Your task to perform on an android device: turn pop-ups off in chrome Image 0: 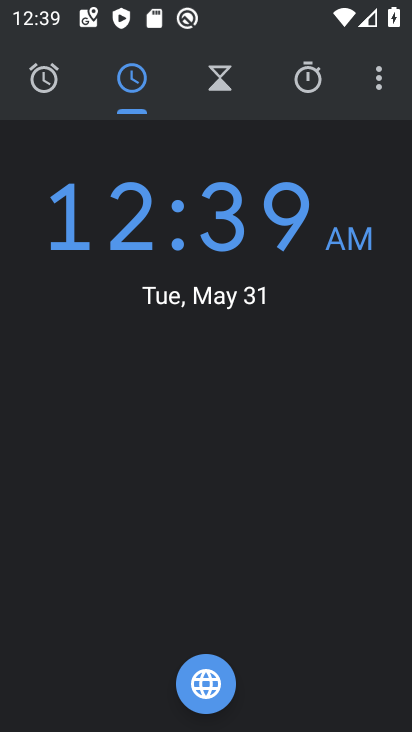
Step 0: press home button
Your task to perform on an android device: turn pop-ups off in chrome Image 1: 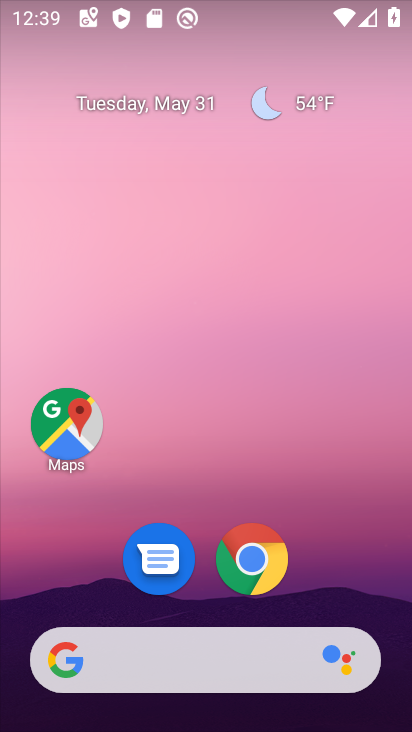
Step 1: click (257, 575)
Your task to perform on an android device: turn pop-ups off in chrome Image 2: 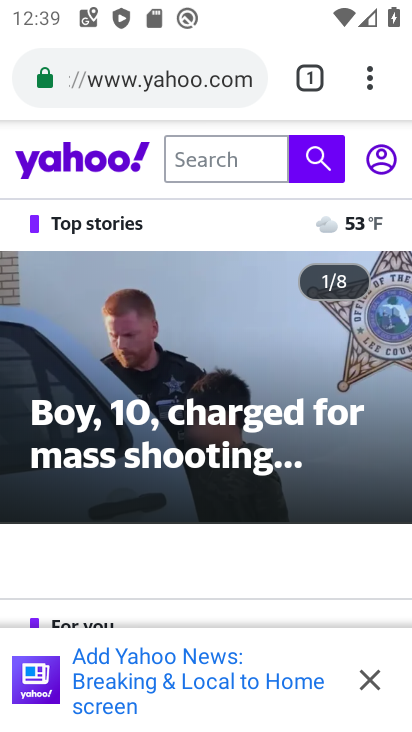
Step 2: click (372, 83)
Your task to perform on an android device: turn pop-ups off in chrome Image 3: 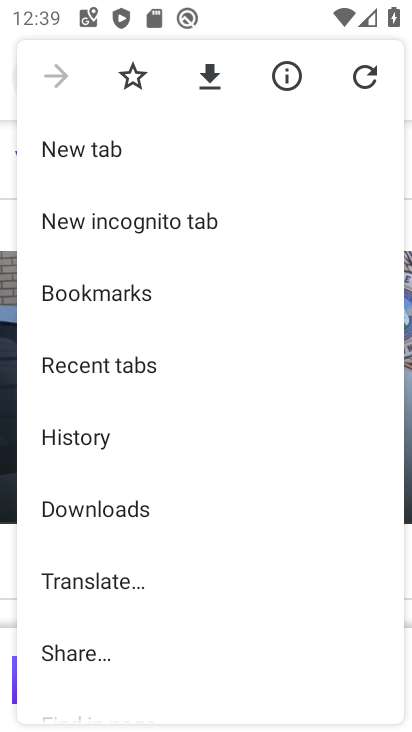
Step 3: drag from (232, 599) to (261, 233)
Your task to perform on an android device: turn pop-ups off in chrome Image 4: 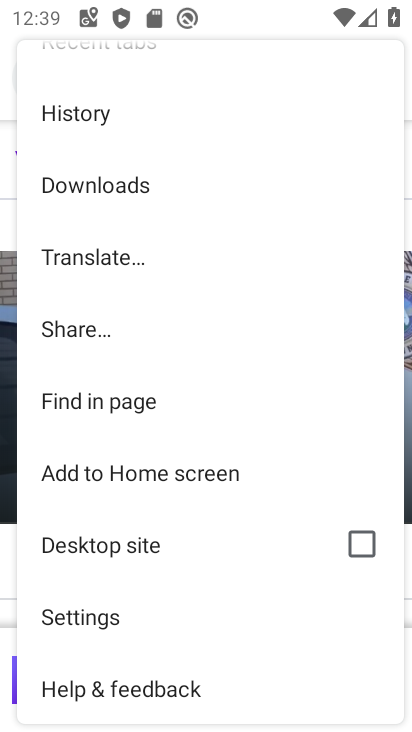
Step 4: click (102, 616)
Your task to perform on an android device: turn pop-ups off in chrome Image 5: 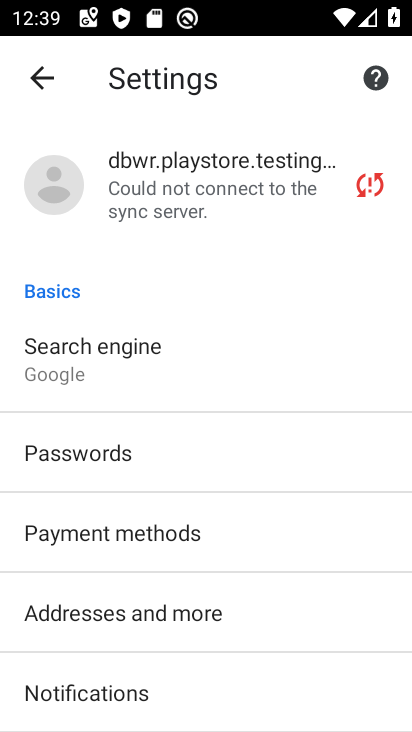
Step 5: drag from (219, 688) to (203, 304)
Your task to perform on an android device: turn pop-ups off in chrome Image 6: 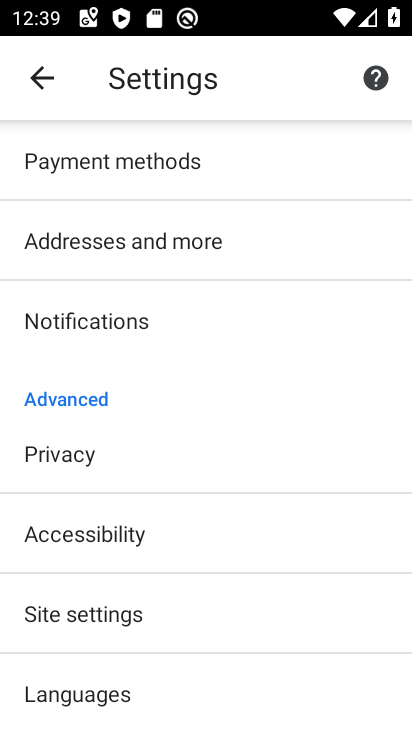
Step 6: click (121, 622)
Your task to perform on an android device: turn pop-ups off in chrome Image 7: 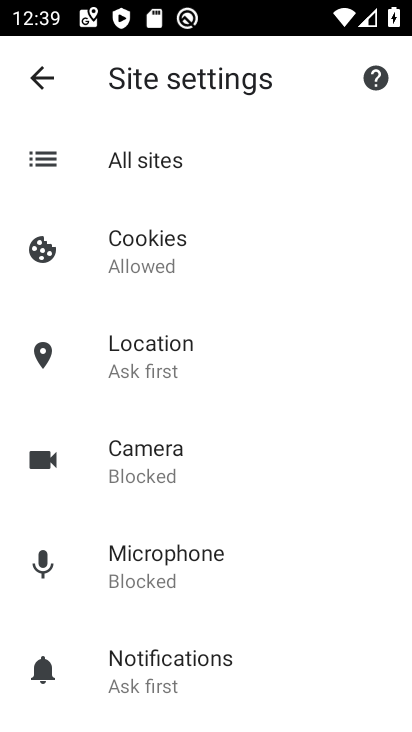
Step 7: drag from (246, 661) to (289, 277)
Your task to perform on an android device: turn pop-ups off in chrome Image 8: 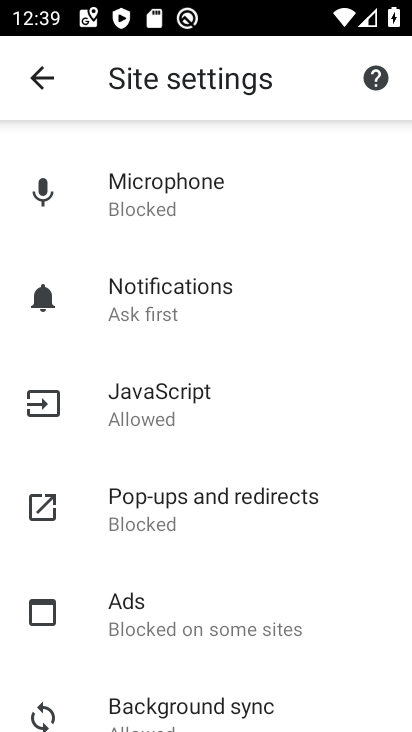
Step 8: click (188, 521)
Your task to perform on an android device: turn pop-ups off in chrome Image 9: 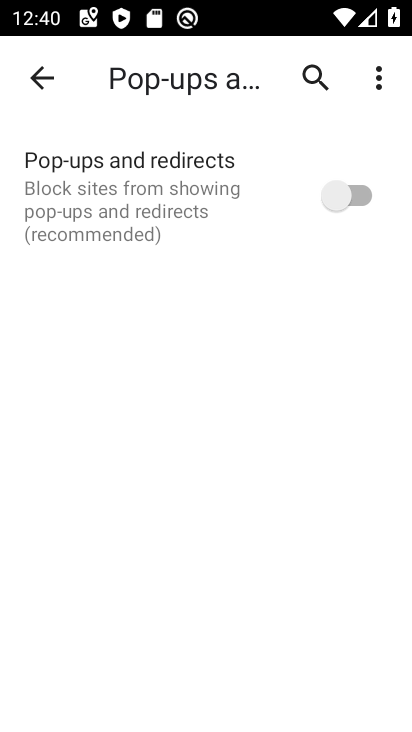
Step 9: task complete